Your task to perform on an android device: stop showing notifications on the lock screen Image 0: 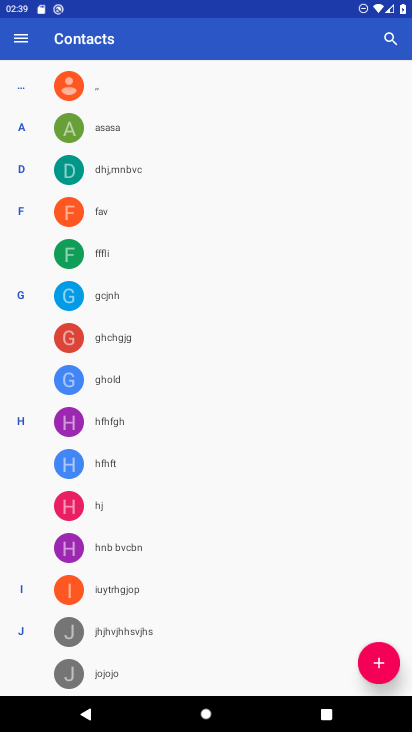
Step 0: press home button
Your task to perform on an android device: stop showing notifications on the lock screen Image 1: 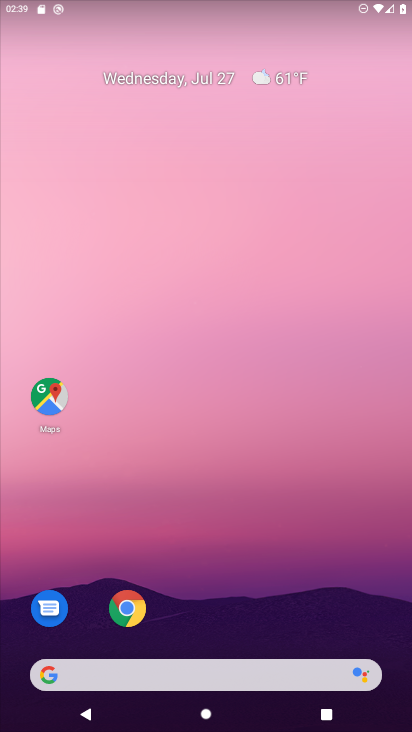
Step 1: drag from (267, 648) to (236, 126)
Your task to perform on an android device: stop showing notifications on the lock screen Image 2: 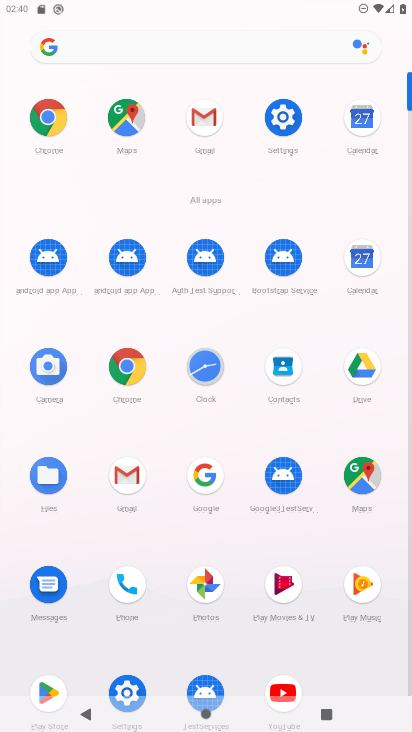
Step 2: click (292, 122)
Your task to perform on an android device: stop showing notifications on the lock screen Image 3: 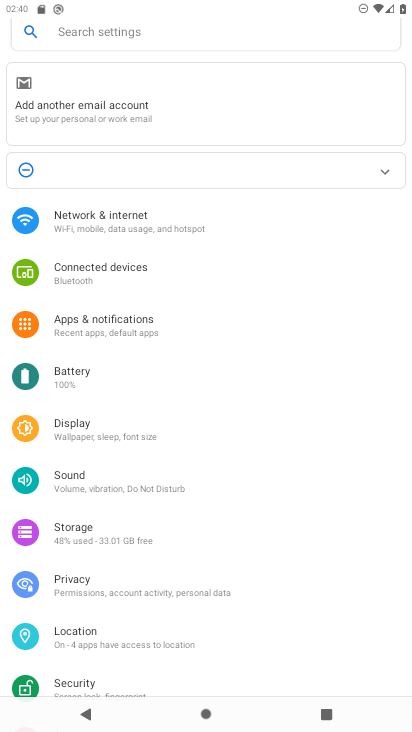
Step 3: click (143, 324)
Your task to perform on an android device: stop showing notifications on the lock screen Image 4: 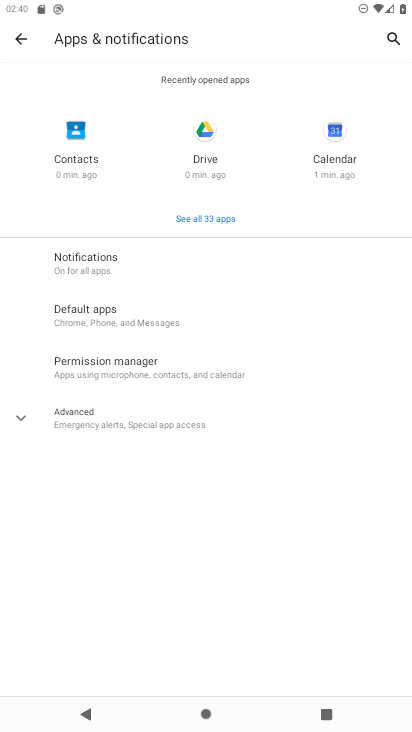
Step 4: click (187, 262)
Your task to perform on an android device: stop showing notifications on the lock screen Image 5: 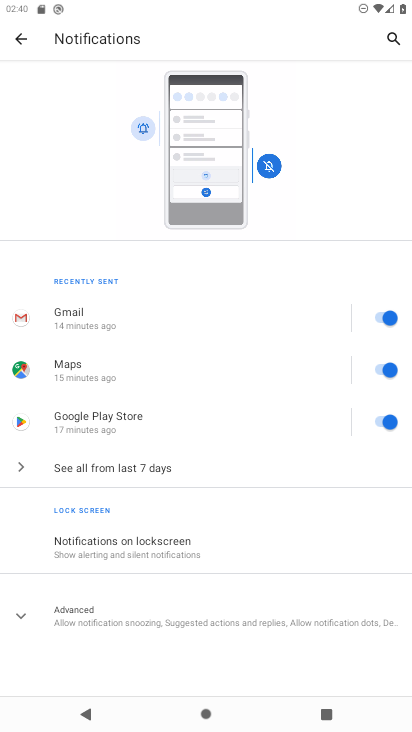
Step 5: click (222, 547)
Your task to perform on an android device: stop showing notifications on the lock screen Image 6: 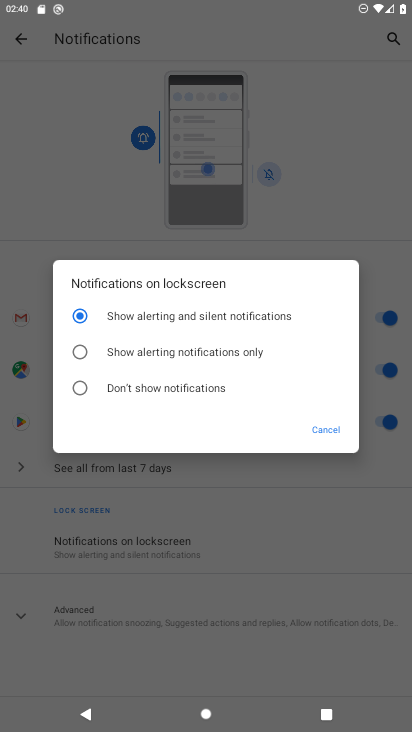
Step 6: click (190, 389)
Your task to perform on an android device: stop showing notifications on the lock screen Image 7: 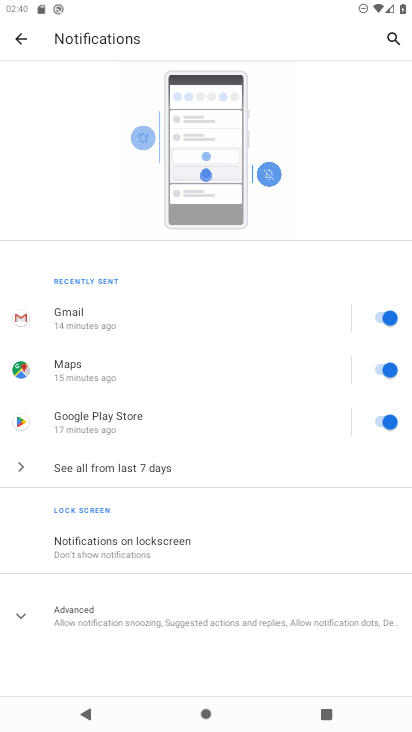
Step 7: task complete